Your task to perform on an android device: Is it going to rain this weekend? Image 0: 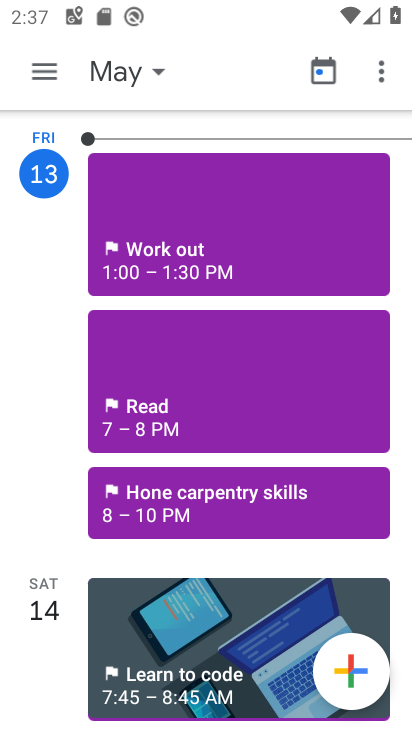
Step 0: click (325, 651)
Your task to perform on an android device: Is it going to rain this weekend? Image 1: 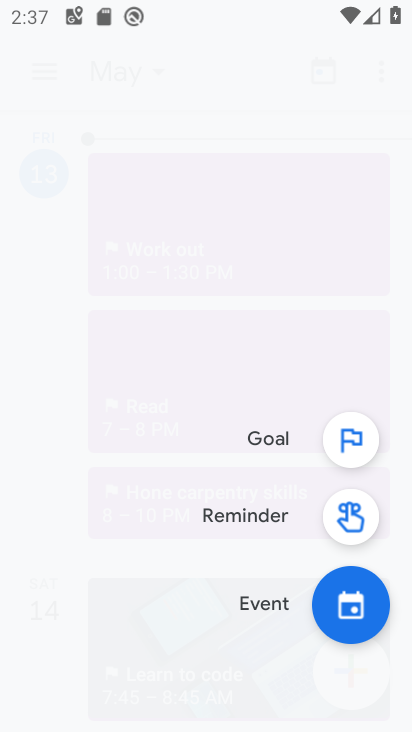
Step 1: press home button
Your task to perform on an android device: Is it going to rain this weekend? Image 2: 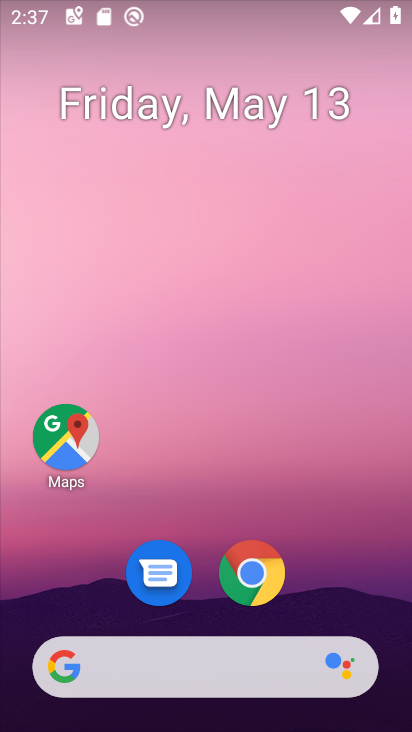
Step 2: drag from (48, 285) to (404, 400)
Your task to perform on an android device: Is it going to rain this weekend? Image 3: 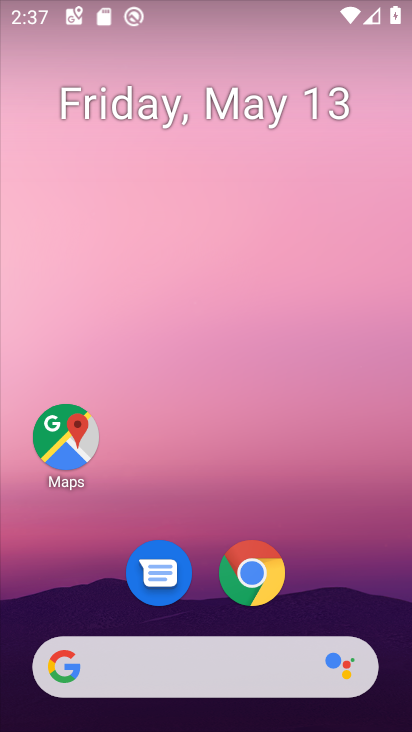
Step 3: drag from (17, 257) to (388, 471)
Your task to perform on an android device: Is it going to rain this weekend? Image 4: 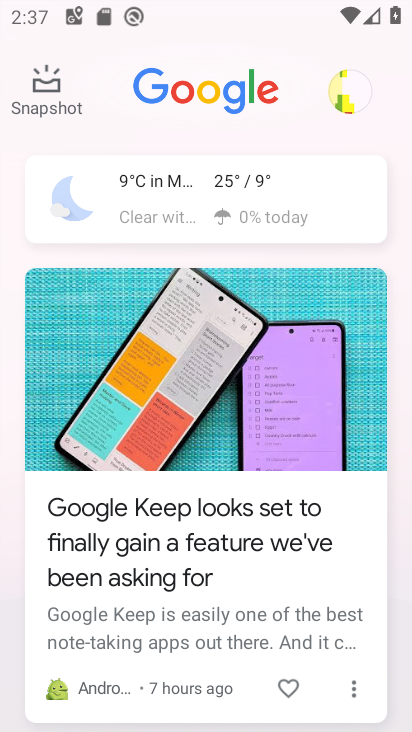
Step 4: click (141, 231)
Your task to perform on an android device: Is it going to rain this weekend? Image 5: 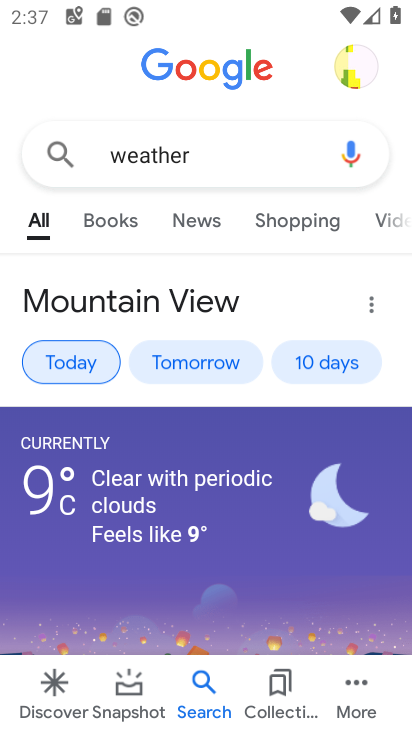
Step 5: click (155, 380)
Your task to perform on an android device: Is it going to rain this weekend? Image 6: 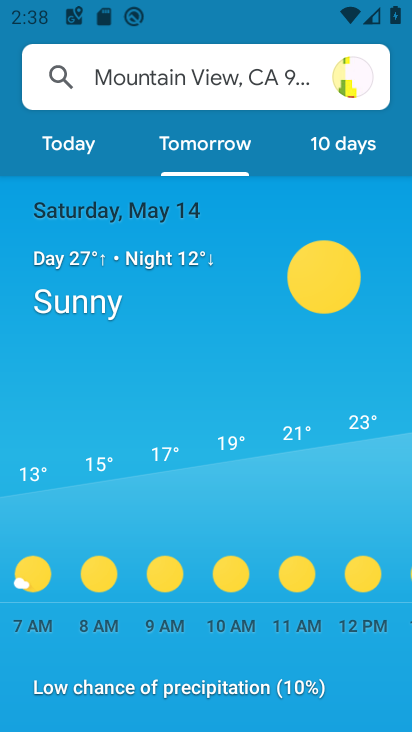
Step 6: click (355, 144)
Your task to perform on an android device: Is it going to rain this weekend? Image 7: 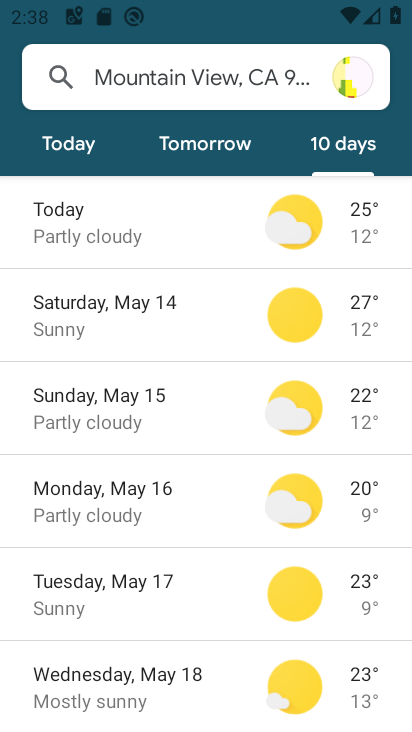
Step 7: click (90, 374)
Your task to perform on an android device: Is it going to rain this weekend? Image 8: 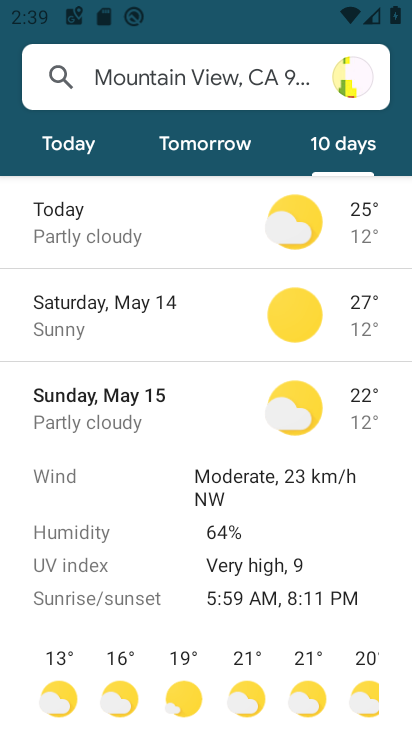
Step 8: drag from (108, 441) to (308, 620)
Your task to perform on an android device: Is it going to rain this weekend? Image 9: 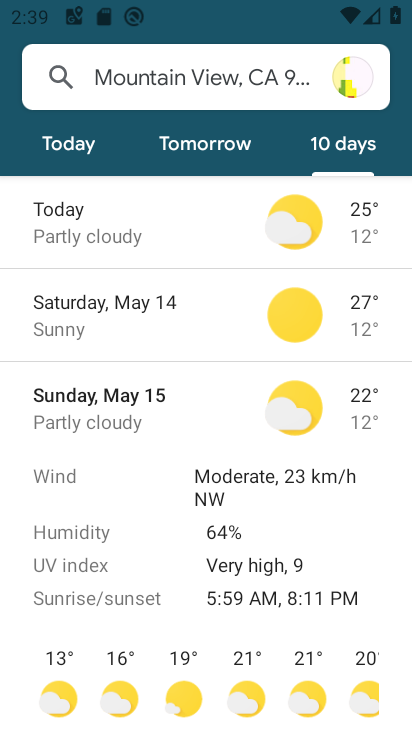
Step 9: drag from (371, 726) to (339, 656)
Your task to perform on an android device: Is it going to rain this weekend? Image 10: 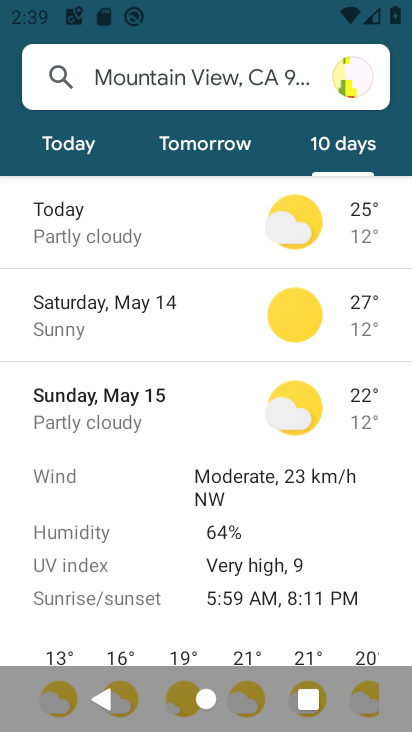
Step 10: click (325, 641)
Your task to perform on an android device: Is it going to rain this weekend? Image 11: 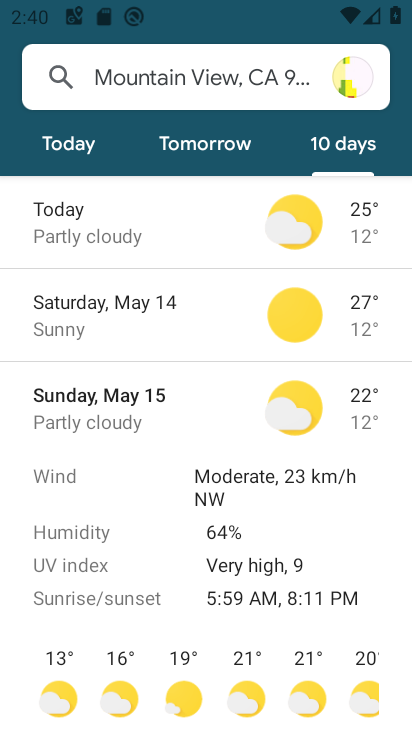
Step 11: click (206, 162)
Your task to perform on an android device: Is it going to rain this weekend? Image 12: 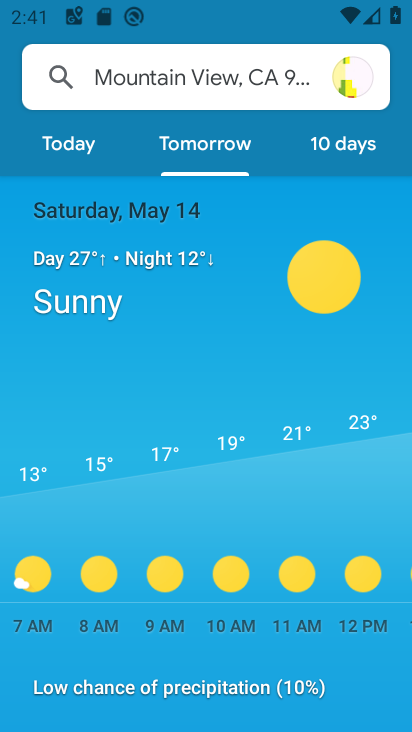
Step 12: click (331, 146)
Your task to perform on an android device: Is it going to rain this weekend? Image 13: 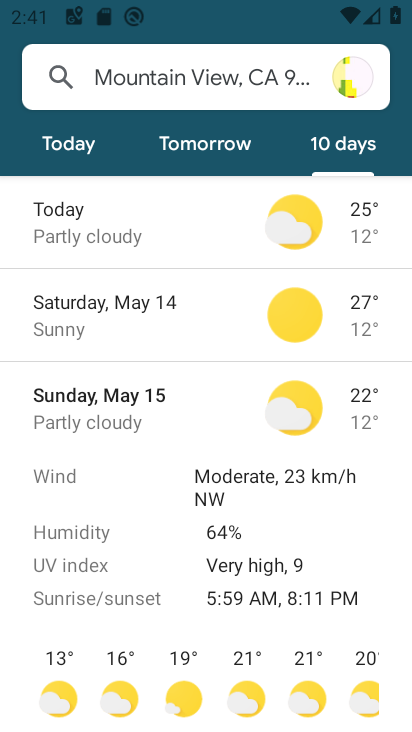
Step 13: press back button
Your task to perform on an android device: Is it going to rain this weekend? Image 14: 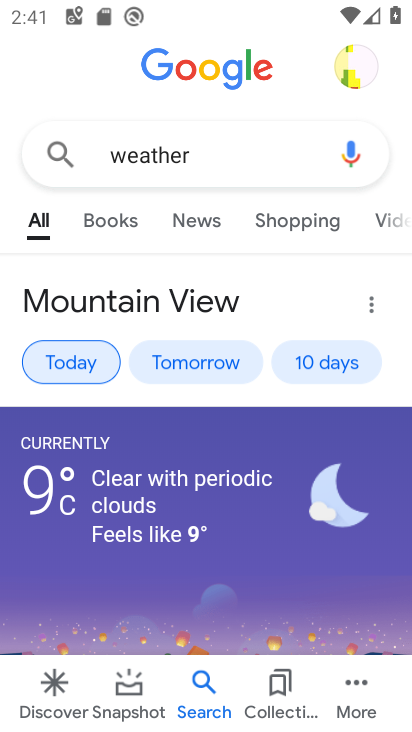
Step 14: click (174, 362)
Your task to perform on an android device: Is it going to rain this weekend? Image 15: 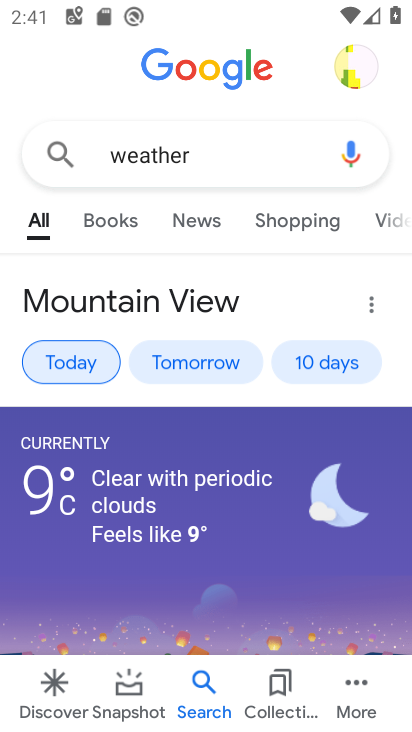
Step 15: click (177, 366)
Your task to perform on an android device: Is it going to rain this weekend? Image 16: 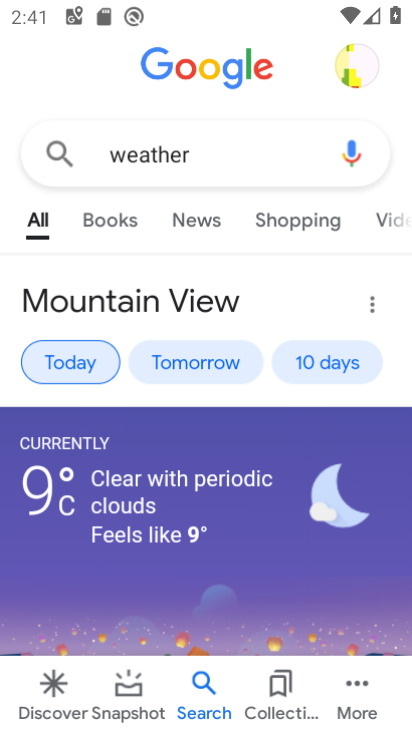
Step 16: click (176, 376)
Your task to perform on an android device: Is it going to rain this weekend? Image 17: 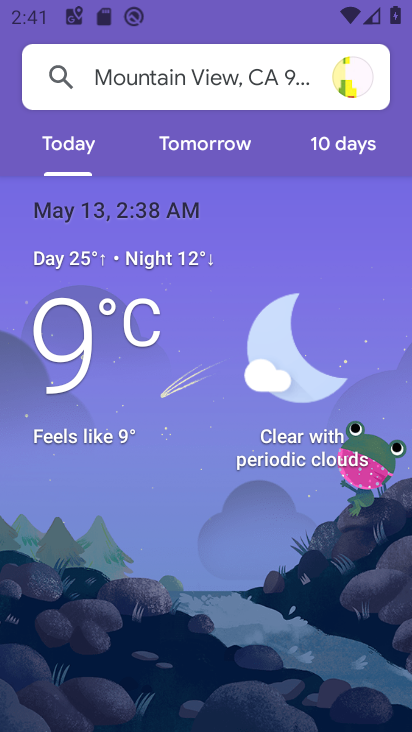
Step 17: task complete